Your task to perform on an android device: Open wifi settings Image 0: 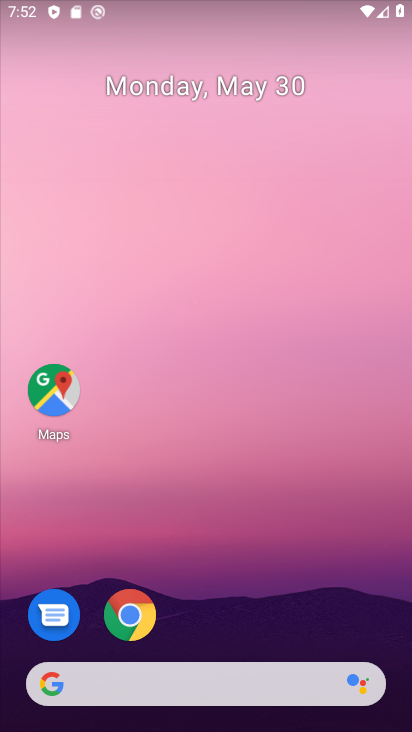
Step 0: drag from (94, 726) to (82, 570)
Your task to perform on an android device: Open wifi settings Image 1: 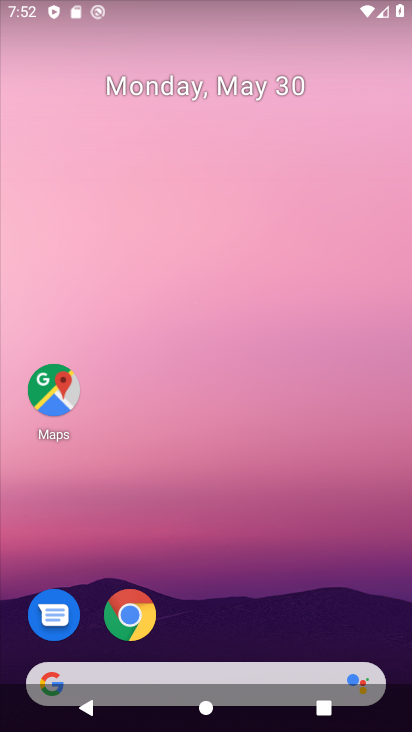
Step 1: drag from (142, 720) to (157, 106)
Your task to perform on an android device: Open wifi settings Image 2: 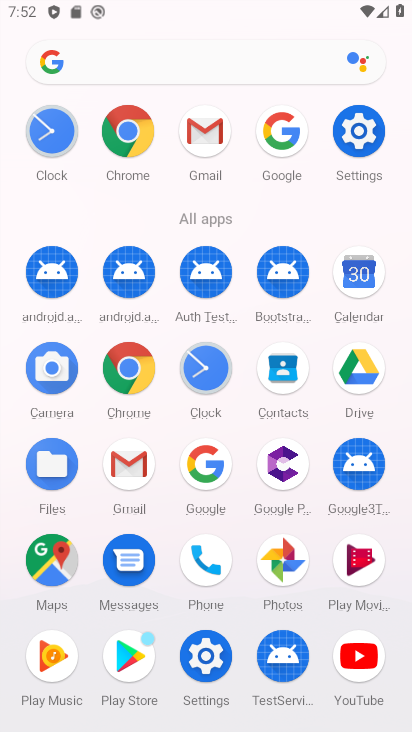
Step 2: click (333, 127)
Your task to perform on an android device: Open wifi settings Image 3: 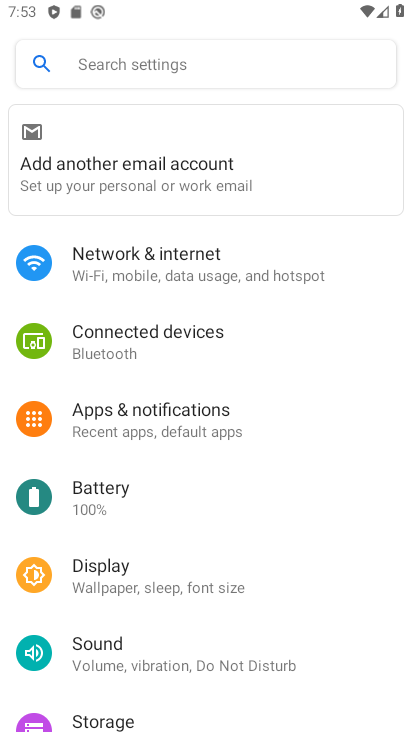
Step 3: task complete